Your task to perform on an android device: open a bookmark in the chrome app Image 0: 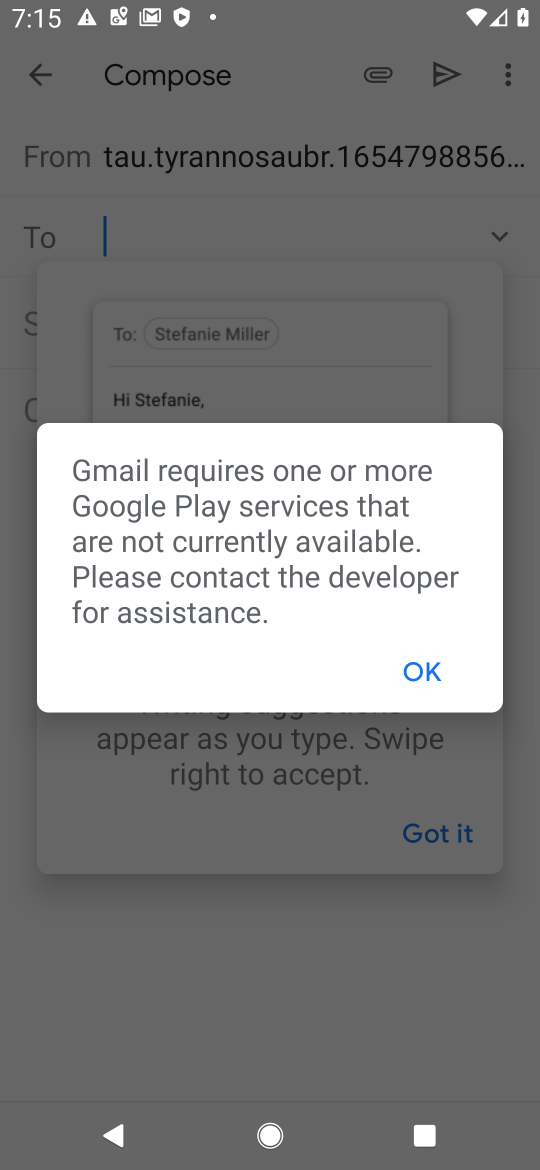
Step 0: press home button
Your task to perform on an android device: open a bookmark in the chrome app Image 1: 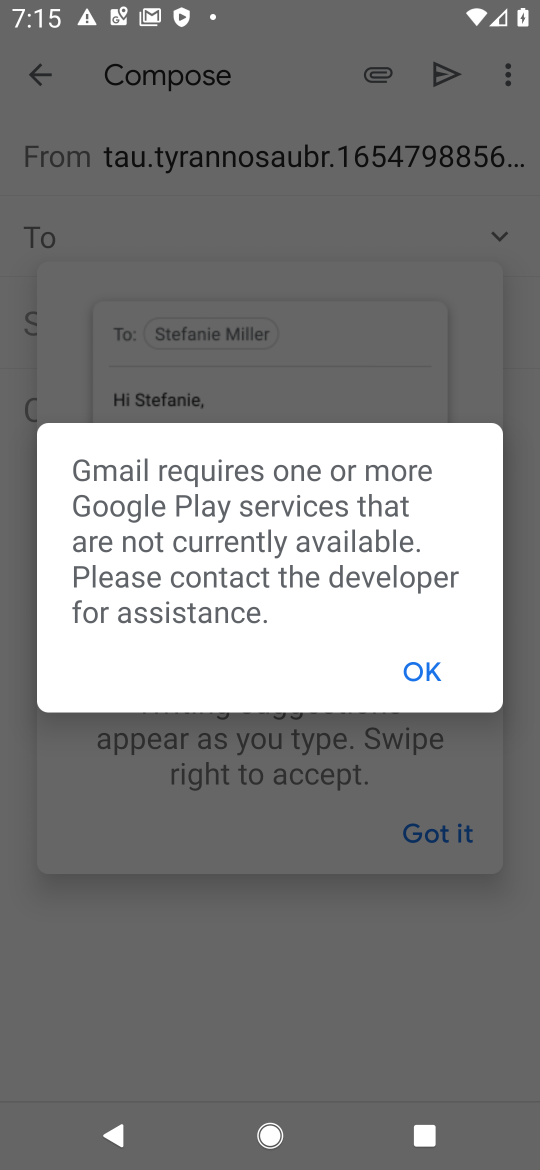
Step 1: drag from (451, 774) to (293, 21)
Your task to perform on an android device: open a bookmark in the chrome app Image 2: 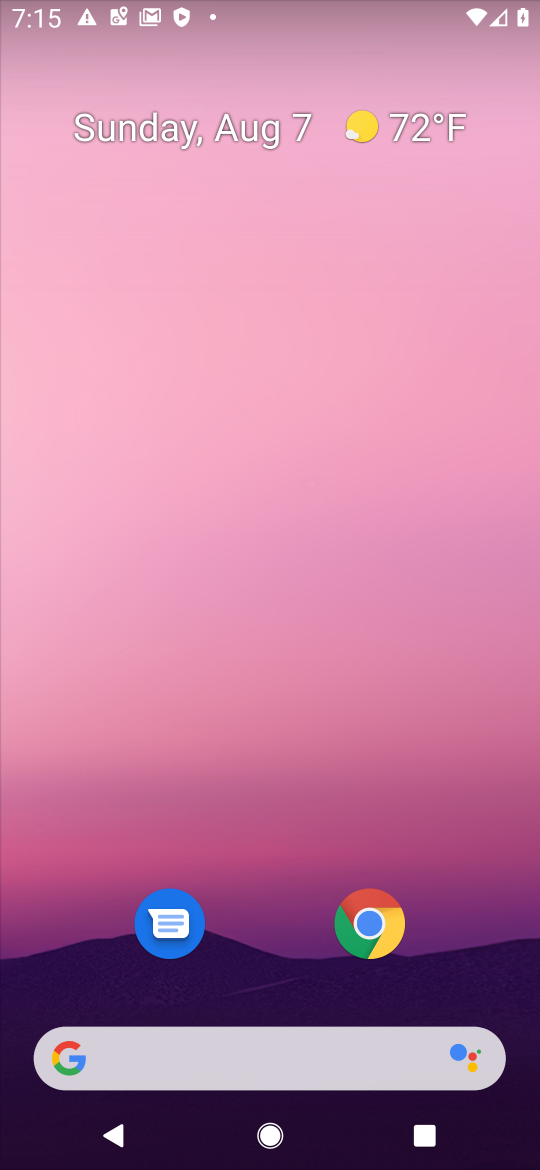
Step 2: drag from (500, 1012) to (196, 52)
Your task to perform on an android device: open a bookmark in the chrome app Image 3: 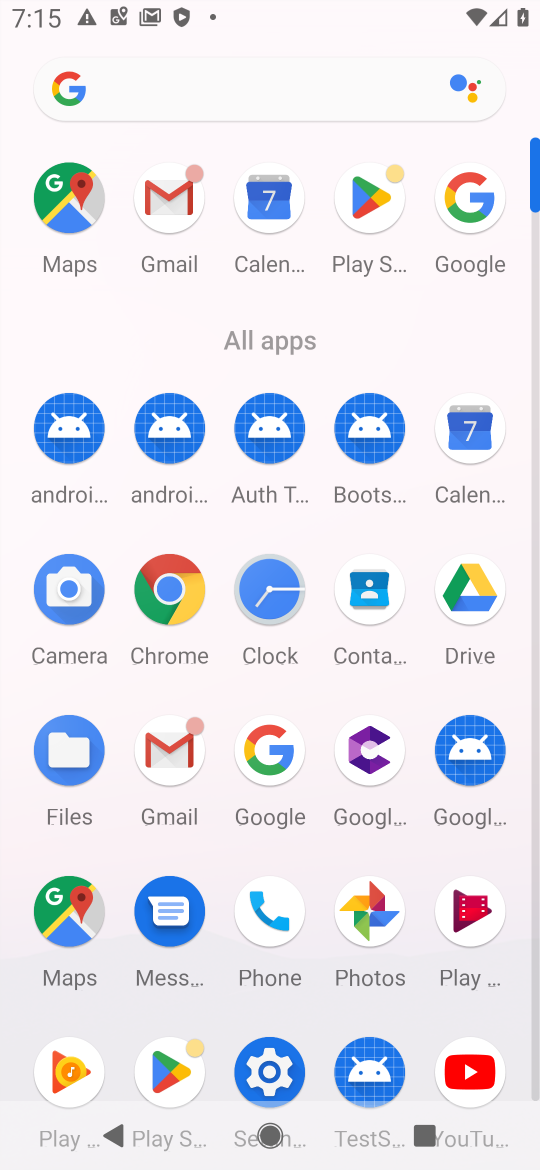
Step 3: click (182, 630)
Your task to perform on an android device: open a bookmark in the chrome app Image 4: 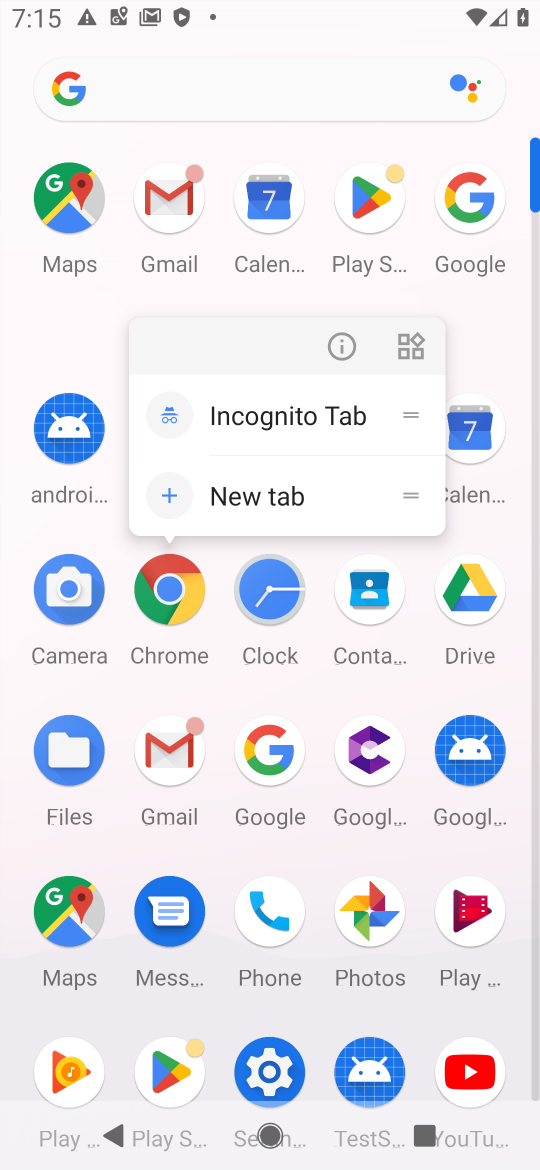
Step 4: click (182, 630)
Your task to perform on an android device: open a bookmark in the chrome app Image 5: 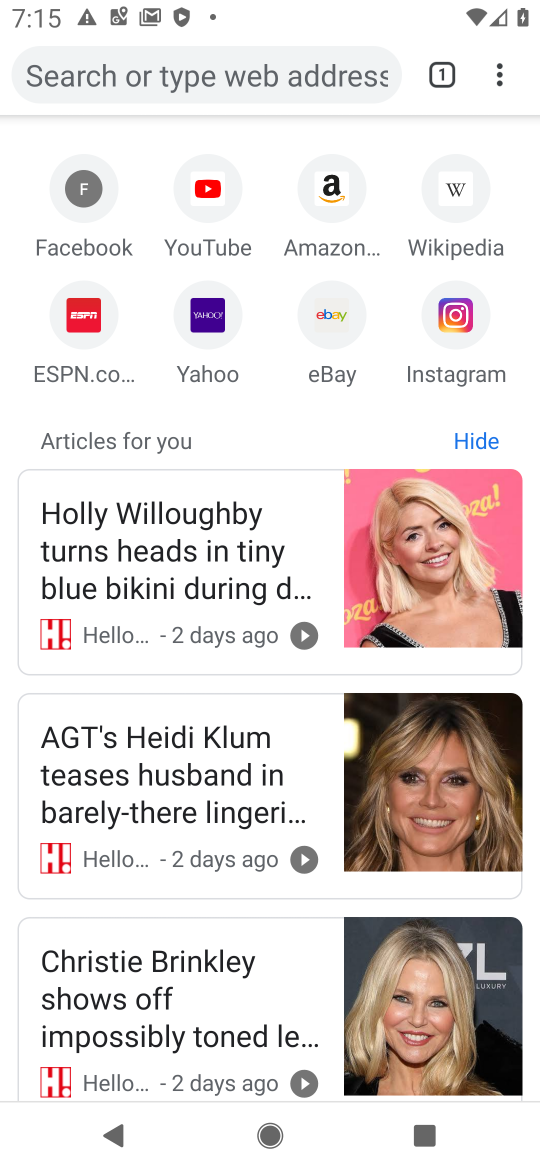
Step 5: click (507, 63)
Your task to perform on an android device: open a bookmark in the chrome app Image 6: 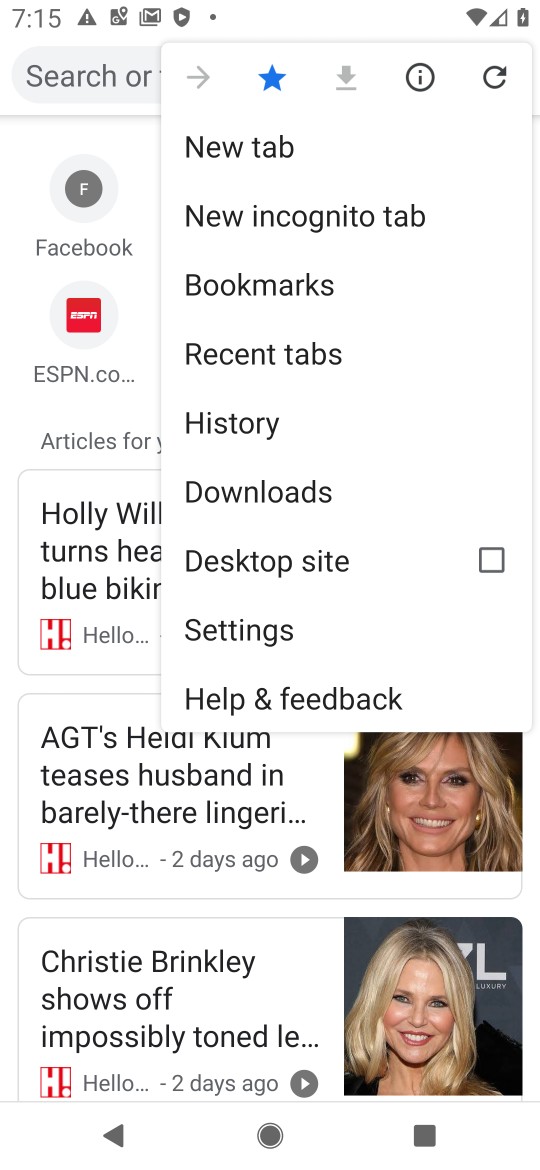
Step 6: click (222, 289)
Your task to perform on an android device: open a bookmark in the chrome app Image 7: 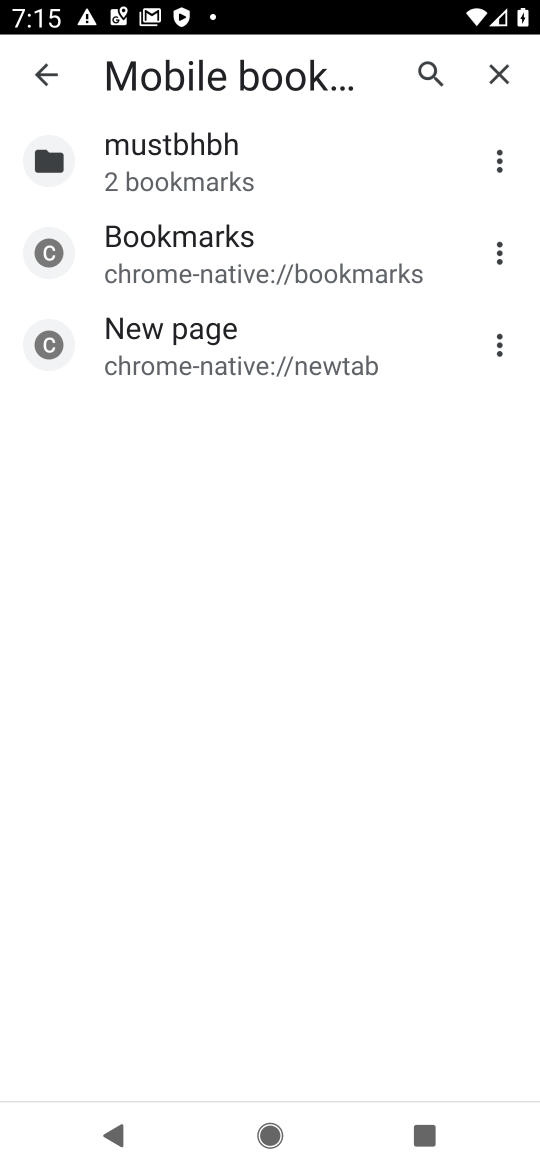
Step 7: task complete